Your task to perform on an android device: Open calendar and show me the third week of next month Image 0: 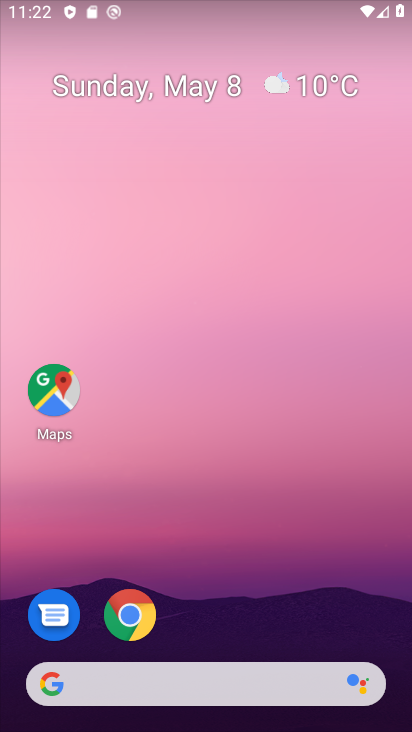
Step 0: drag from (241, 694) to (248, 319)
Your task to perform on an android device: Open calendar and show me the third week of next month Image 1: 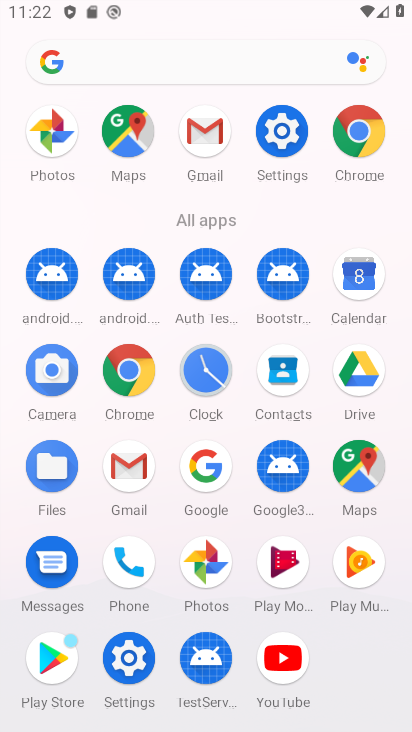
Step 1: click (342, 286)
Your task to perform on an android device: Open calendar and show me the third week of next month Image 2: 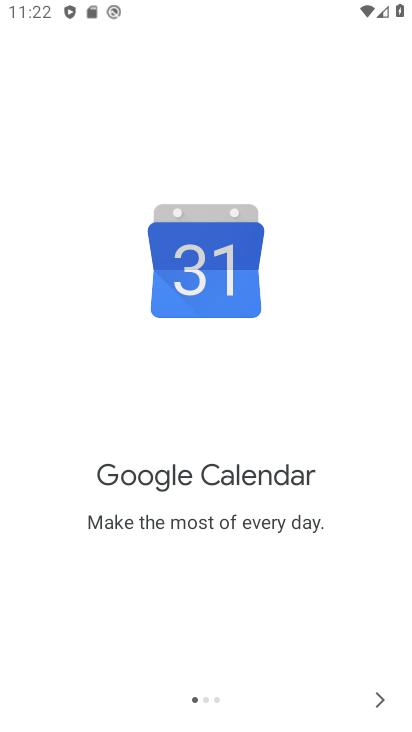
Step 2: click (380, 708)
Your task to perform on an android device: Open calendar and show me the third week of next month Image 3: 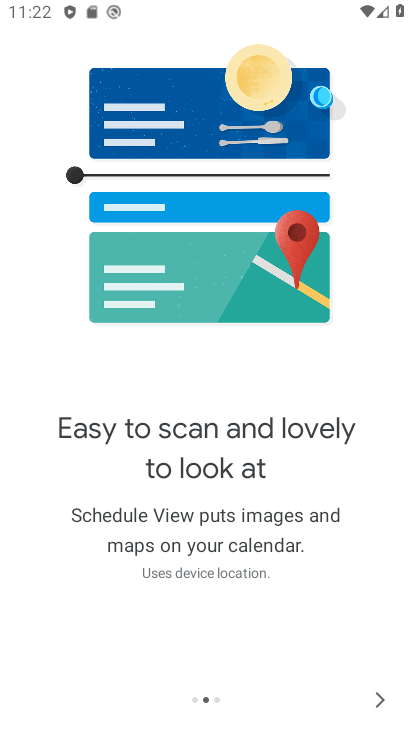
Step 3: click (381, 692)
Your task to perform on an android device: Open calendar and show me the third week of next month Image 4: 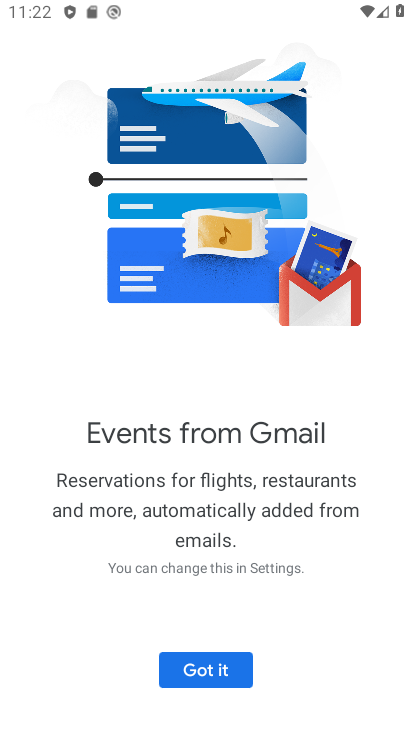
Step 4: click (222, 659)
Your task to perform on an android device: Open calendar and show me the third week of next month Image 5: 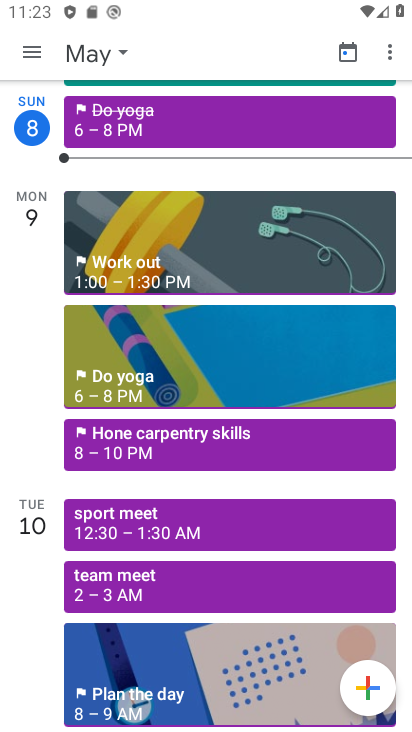
Step 5: click (27, 58)
Your task to perform on an android device: Open calendar and show me the third week of next month Image 6: 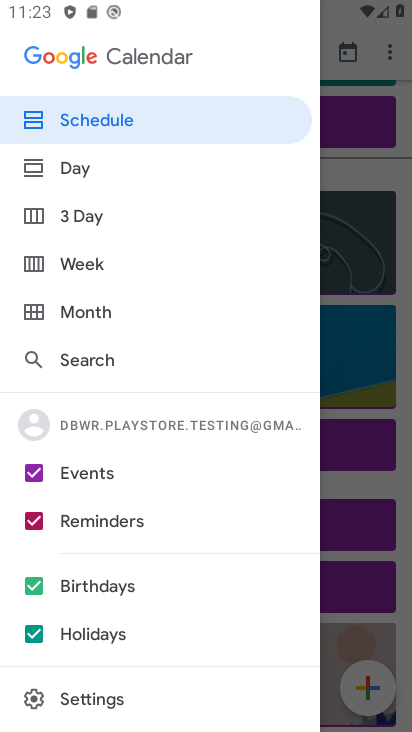
Step 6: click (109, 303)
Your task to perform on an android device: Open calendar and show me the third week of next month Image 7: 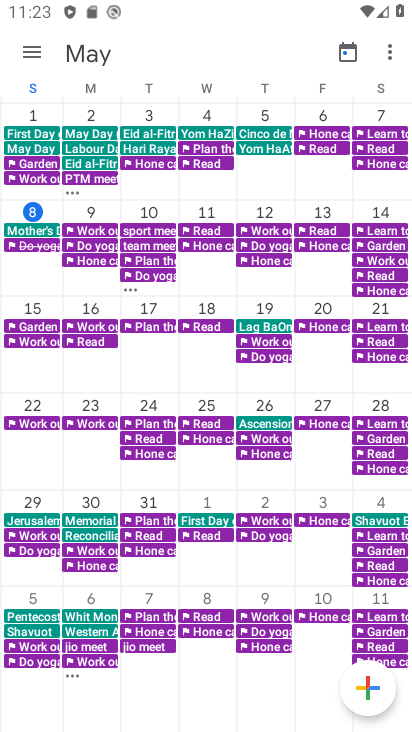
Step 7: drag from (374, 403) to (14, 505)
Your task to perform on an android device: Open calendar and show me the third week of next month Image 8: 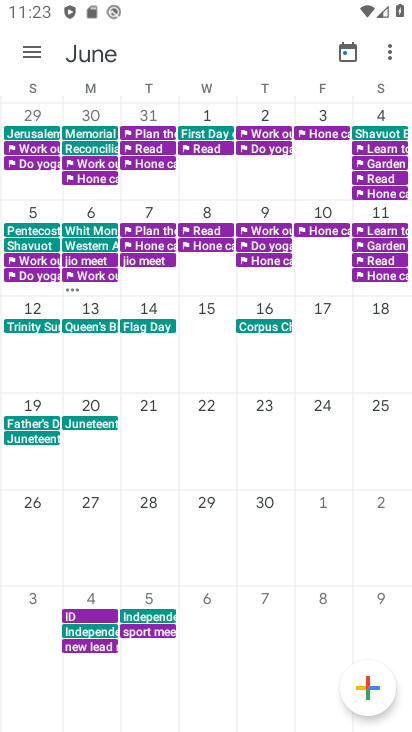
Step 8: click (101, 323)
Your task to perform on an android device: Open calendar and show me the third week of next month Image 9: 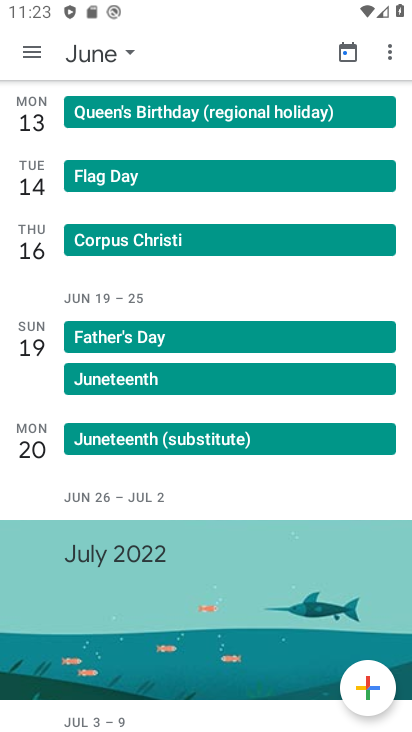
Step 9: task complete